Your task to perform on an android device: add a contact in the contacts app Image 0: 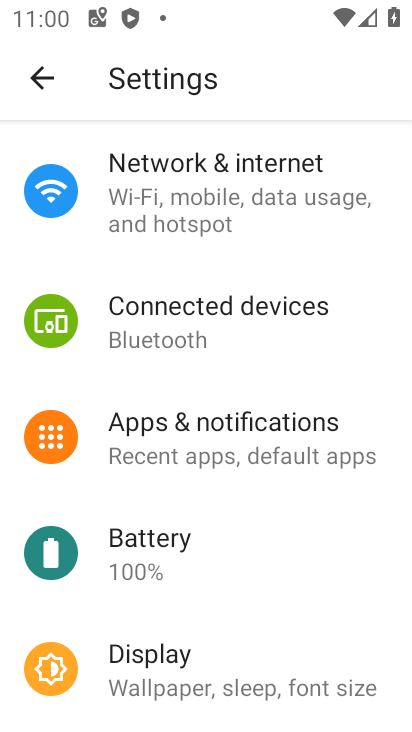
Step 0: press home button
Your task to perform on an android device: add a contact in the contacts app Image 1: 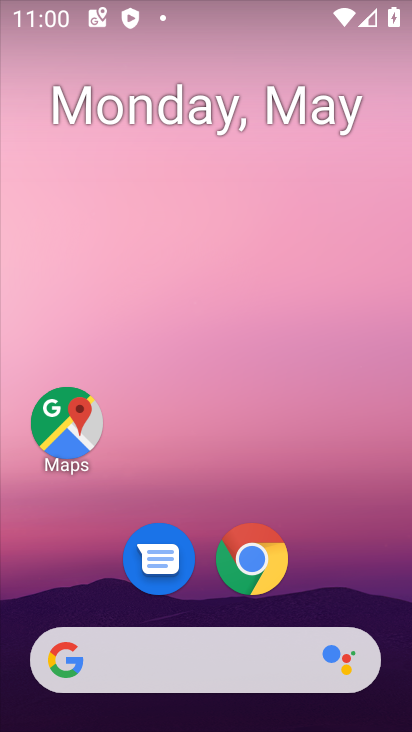
Step 1: drag from (335, 533) to (348, 104)
Your task to perform on an android device: add a contact in the contacts app Image 2: 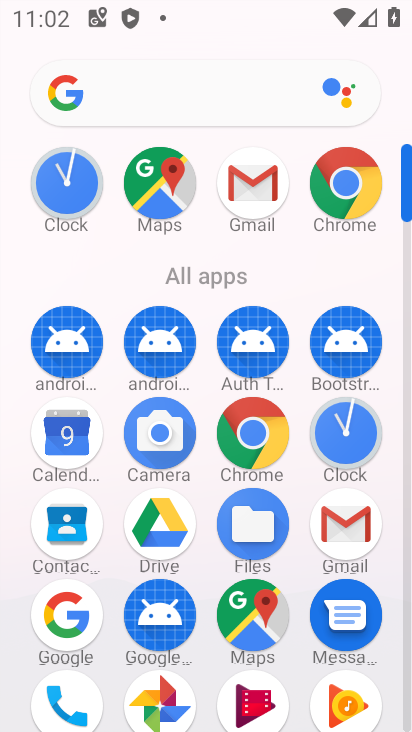
Step 2: click (42, 533)
Your task to perform on an android device: add a contact in the contacts app Image 3: 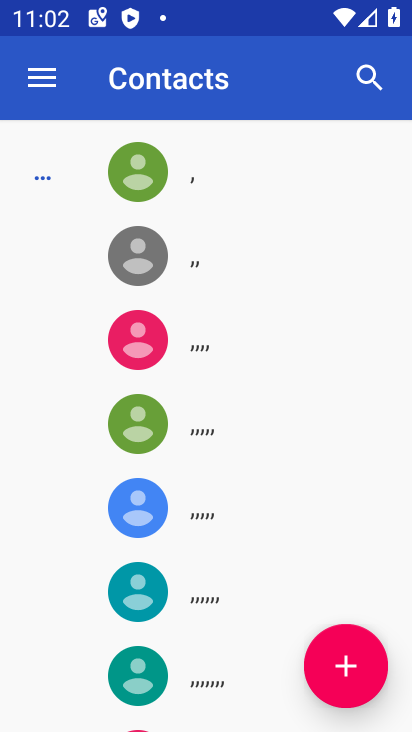
Step 3: click (363, 675)
Your task to perform on an android device: add a contact in the contacts app Image 4: 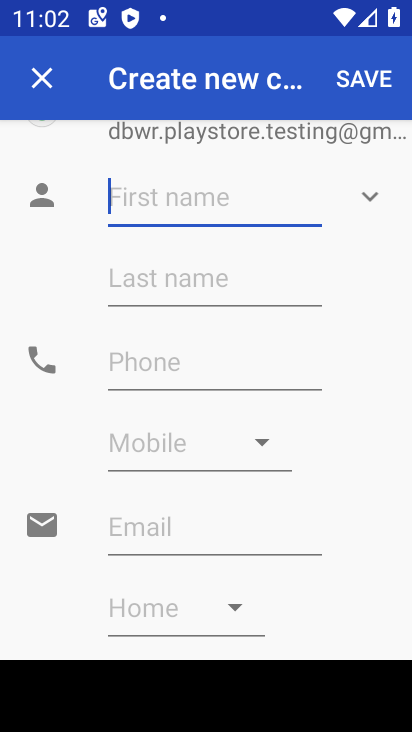
Step 4: type "jake"
Your task to perform on an android device: add a contact in the contacts app Image 5: 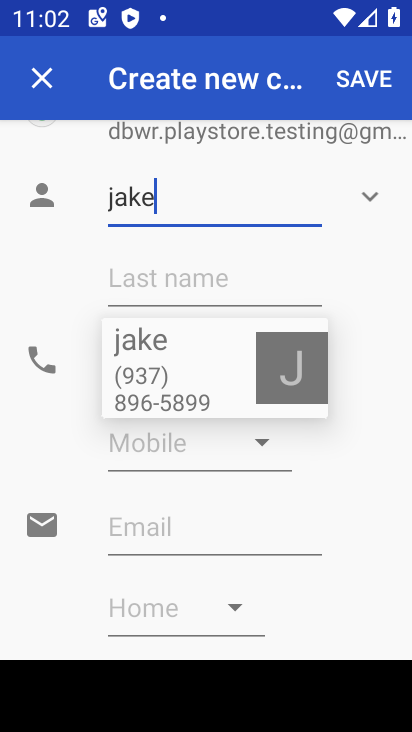
Step 5: type "uuuuu"
Your task to perform on an android device: add a contact in the contacts app Image 6: 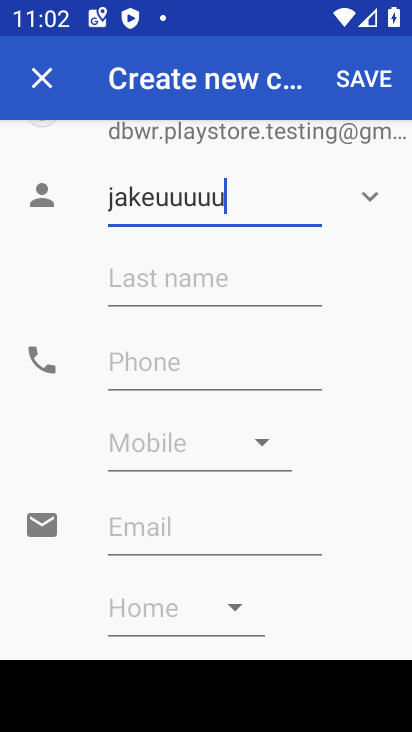
Step 6: click (212, 355)
Your task to perform on an android device: add a contact in the contacts app Image 7: 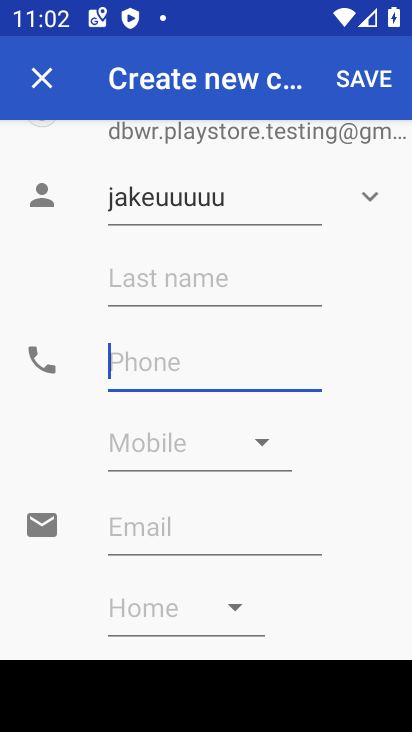
Step 7: click (212, 355)
Your task to perform on an android device: add a contact in the contacts app Image 8: 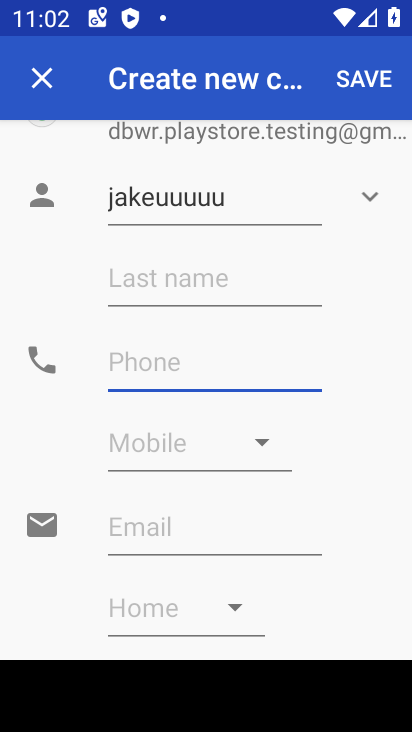
Step 8: click (230, 364)
Your task to perform on an android device: add a contact in the contacts app Image 9: 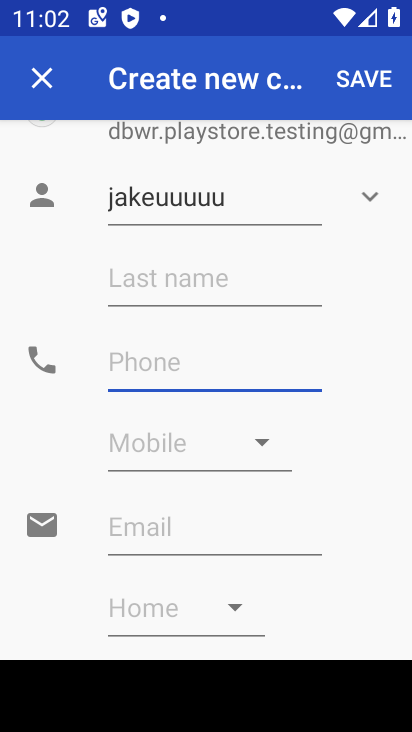
Step 9: type "0987"
Your task to perform on an android device: add a contact in the contacts app Image 10: 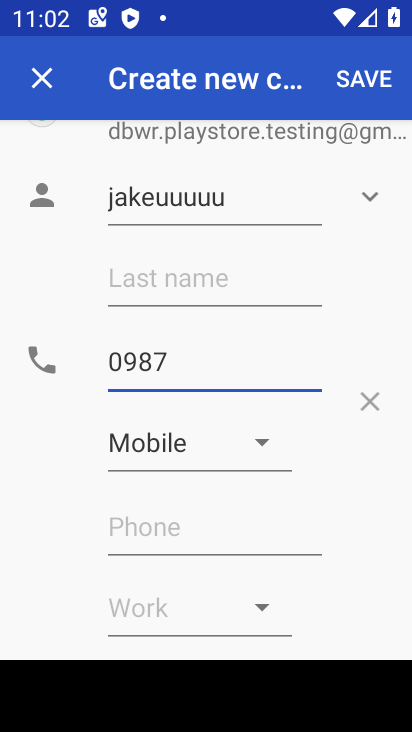
Step 10: click (364, 75)
Your task to perform on an android device: add a contact in the contacts app Image 11: 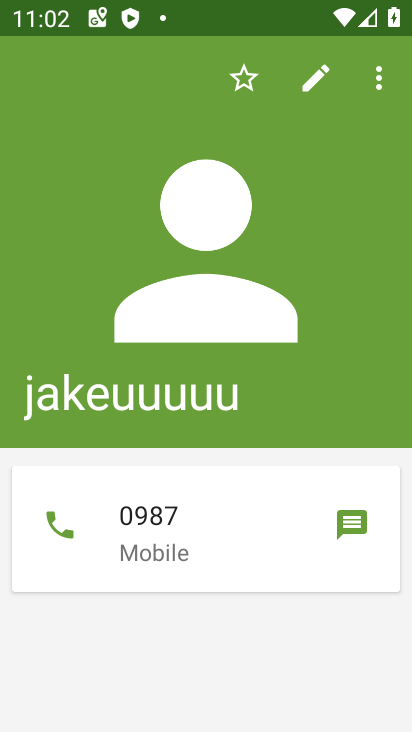
Step 11: task complete